Your task to perform on an android device: Open the Play Movies app and select the watchlist tab. Image 0: 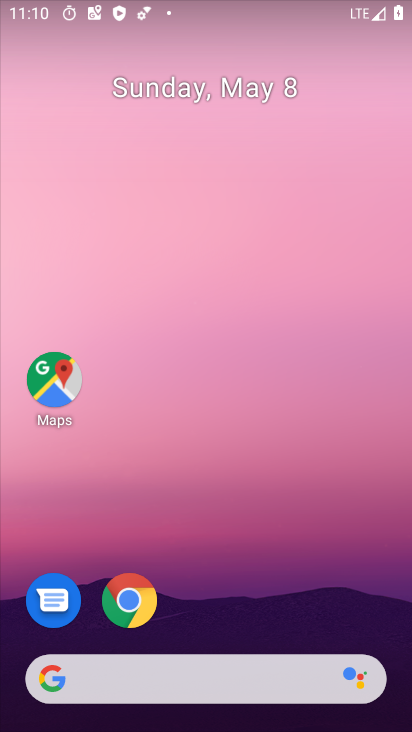
Step 0: drag from (71, 536) to (373, 49)
Your task to perform on an android device: Open the Play Movies app and select the watchlist tab. Image 1: 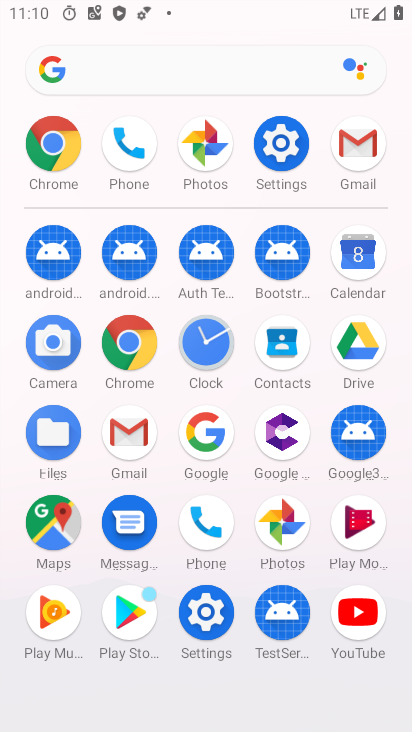
Step 1: click (345, 509)
Your task to perform on an android device: Open the Play Movies app and select the watchlist tab. Image 2: 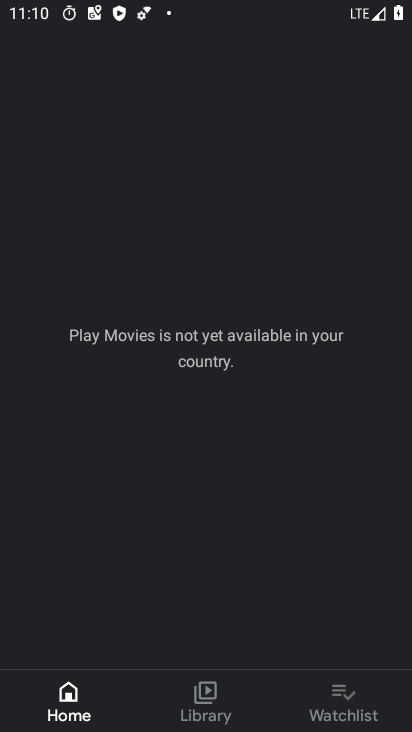
Step 2: click (338, 707)
Your task to perform on an android device: Open the Play Movies app and select the watchlist tab. Image 3: 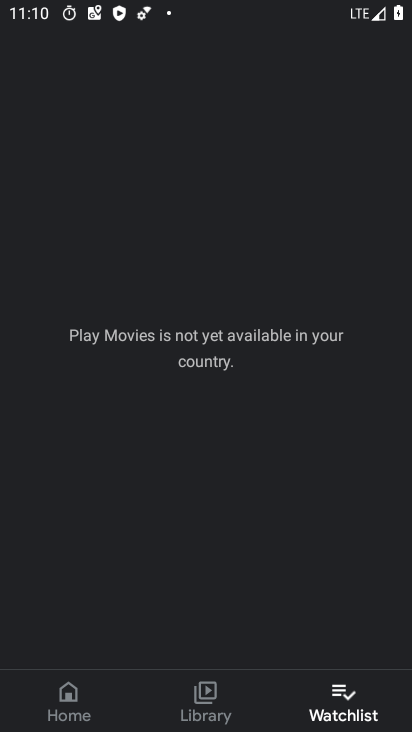
Step 3: task complete